Your task to perform on an android device: change the clock display to digital Image 0: 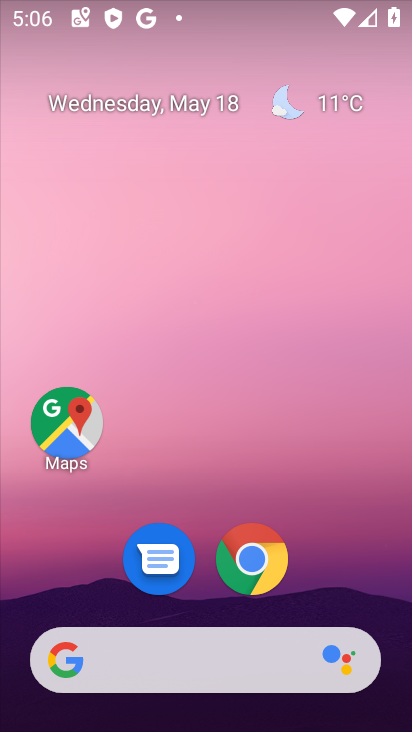
Step 0: drag from (211, 522) to (223, 27)
Your task to perform on an android device: change the clock display to digital Image 1: 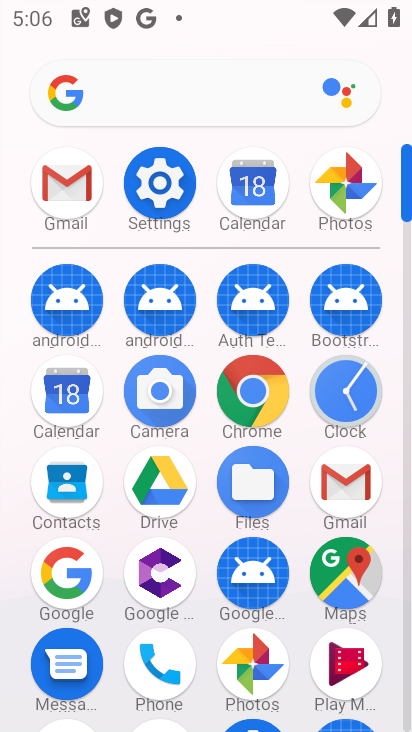
Step 1: click (345, 393)
Your task to perform on an android device: change the clock display to digital Image 2: 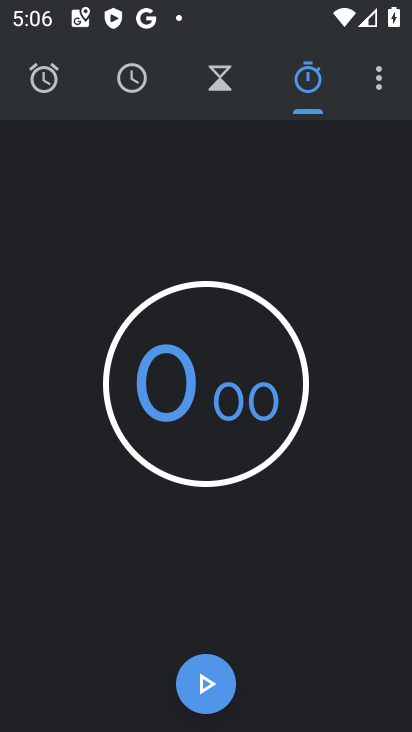
Step 2: click (380, 78)
Your task to perform on an android device: change the clock display to digital Image 3: 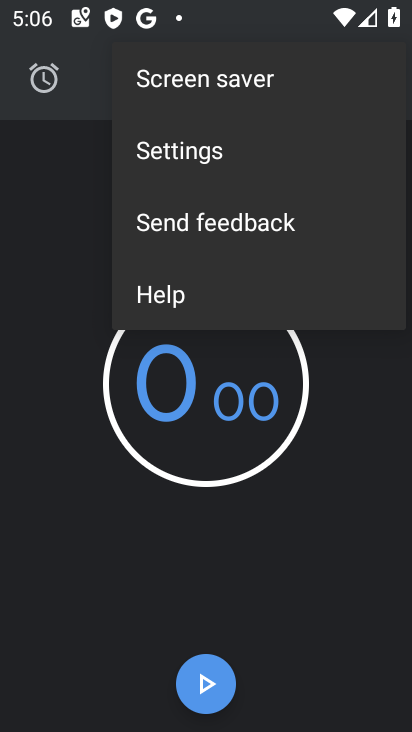
Step 3: click (221, 155)
Your task to perform on an android device: change the clock display to digital Image 4: 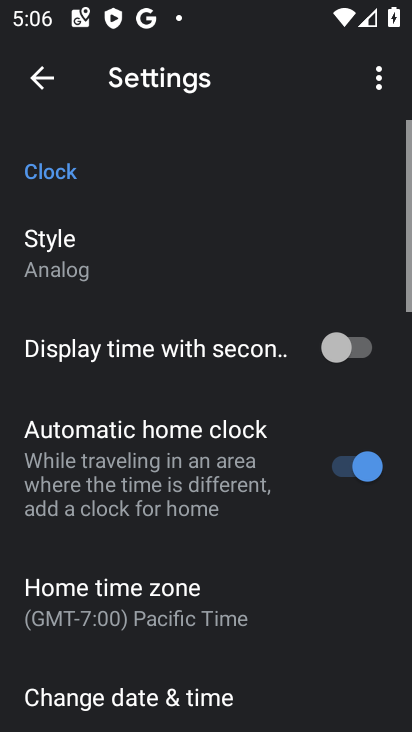
Step 4: click (44, 256)
Your task to perform on an android device: change the clock display to digital Image 5: 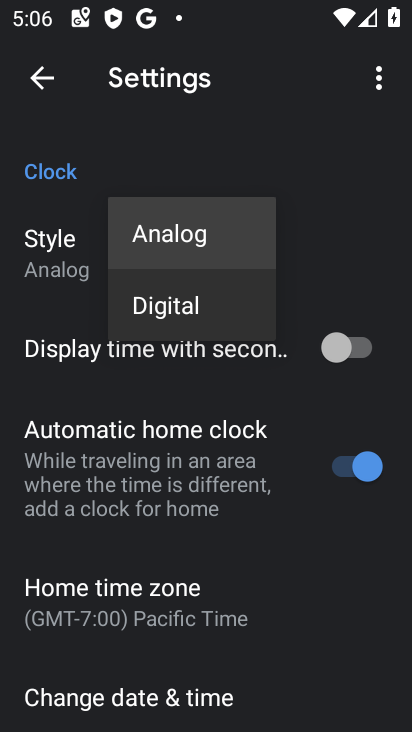
Step 5: click (147, 293)
Your task to perform on an android device: change the clock display to digital Image 6: 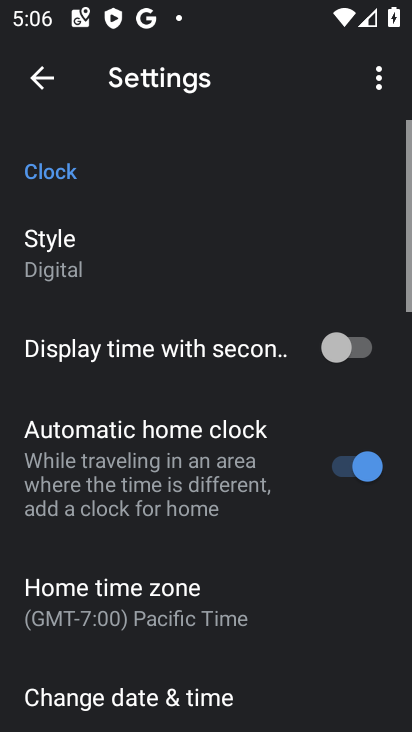
Step 6: task complete